Your task to perform on an android device: search for starred emails in the gmail app Image 0: 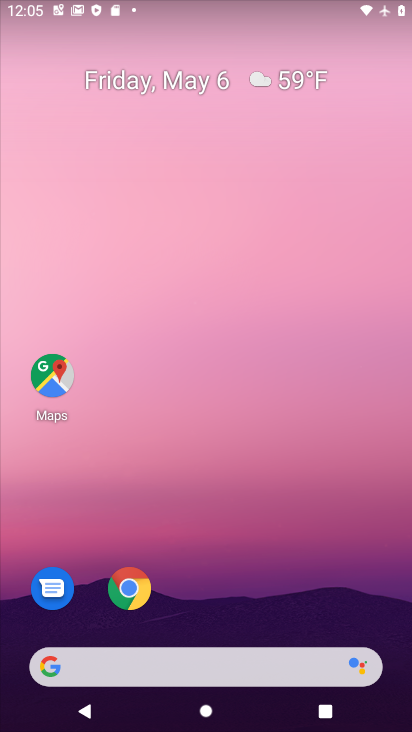
Step 0: drag from (267, 661) to (408, 112)
Your task to perform on an android device: search for starred emails in the gmail app Image 1: 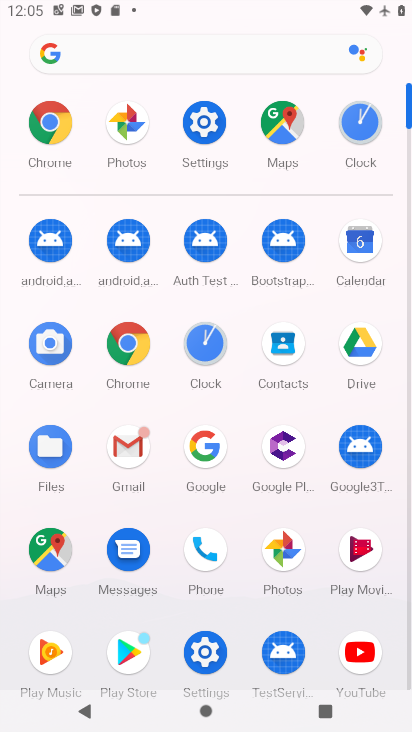
Step 1: click (132, 454)
Your task to perform on an android device: search for starred emails in the gmail app Image 2: 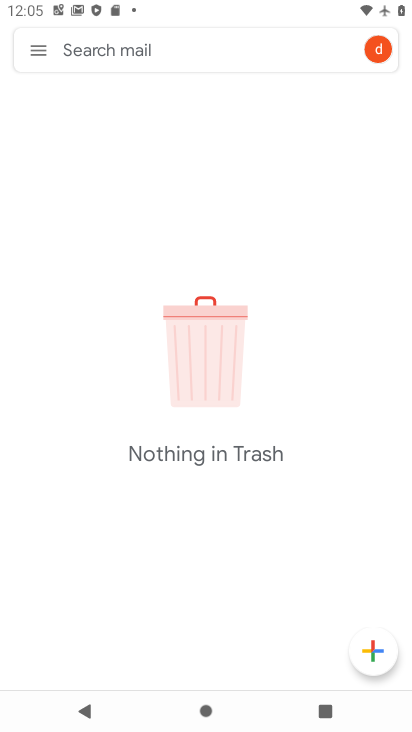
Step 2: click (42, 48)
Your task to perform on an android device: search for starred emails in the gmail app Image 3: 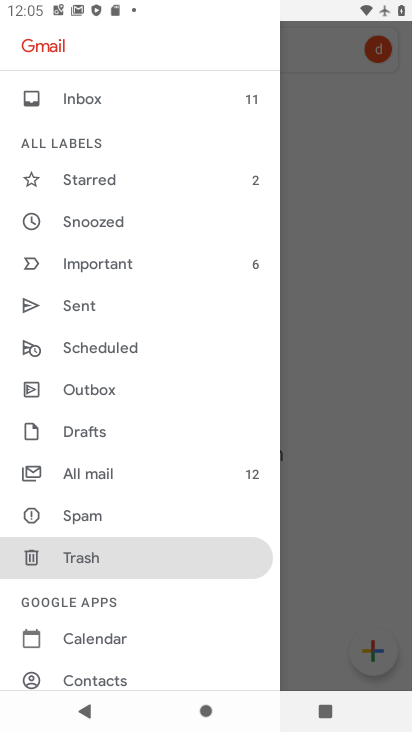
Step 3: click (104, 181)
Your task to perform on an android device: search for starred emails in the gmail app Image 4: 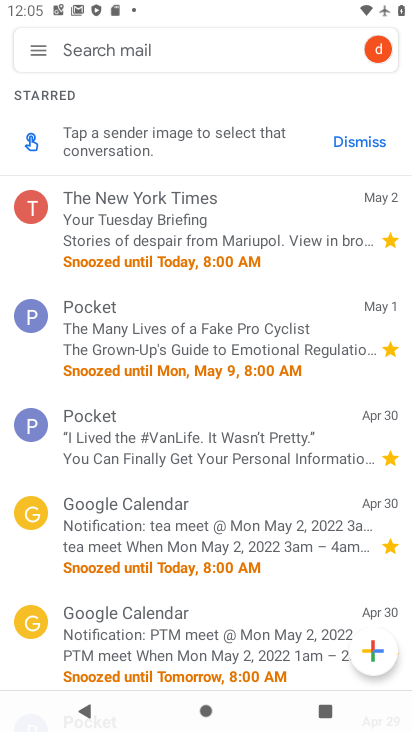
Step 4: task complete